Your task to perform on an android device: Open Google Image 0: 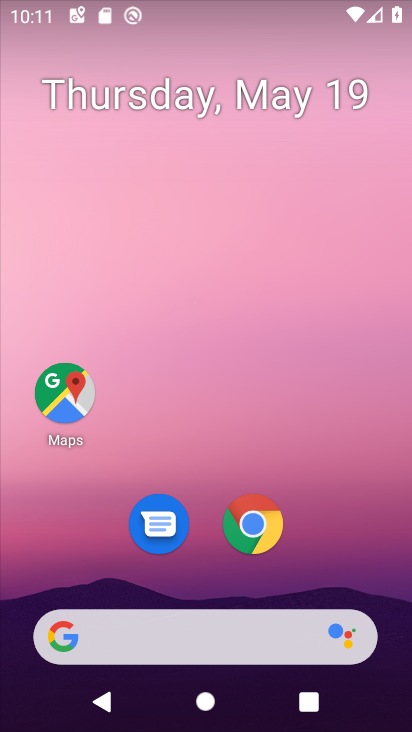
Step 0: click (206, 640)
Your task to perform on an android device: Open Google Image 1: 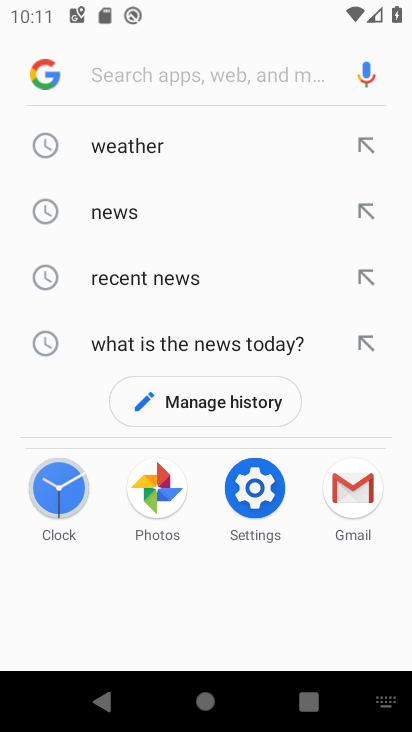
Step 1: click (53, 70)
Your task to perform on an android device: Open Google Image 2: 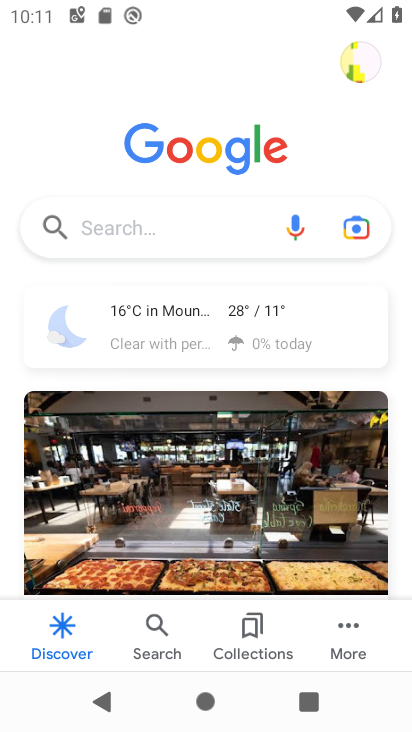
Step 2: task complete